Your task to perform on an android device: Search for vegetarian restaurants on Maps Image 0: 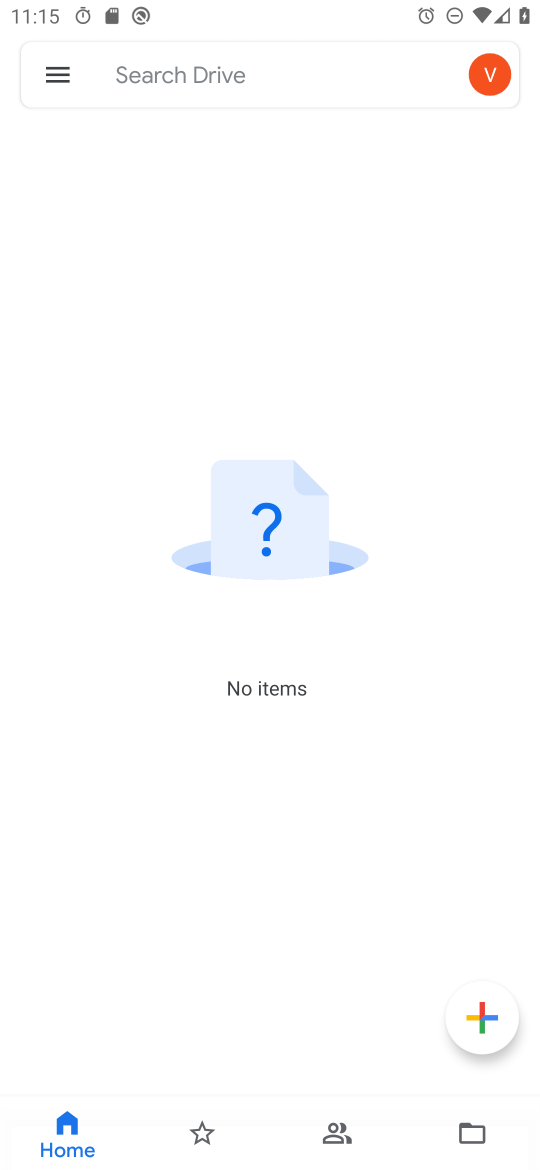
Step 0: press home button
Your task to perform on an android device: Search for vegetarian restaurants on Maps Image 1: 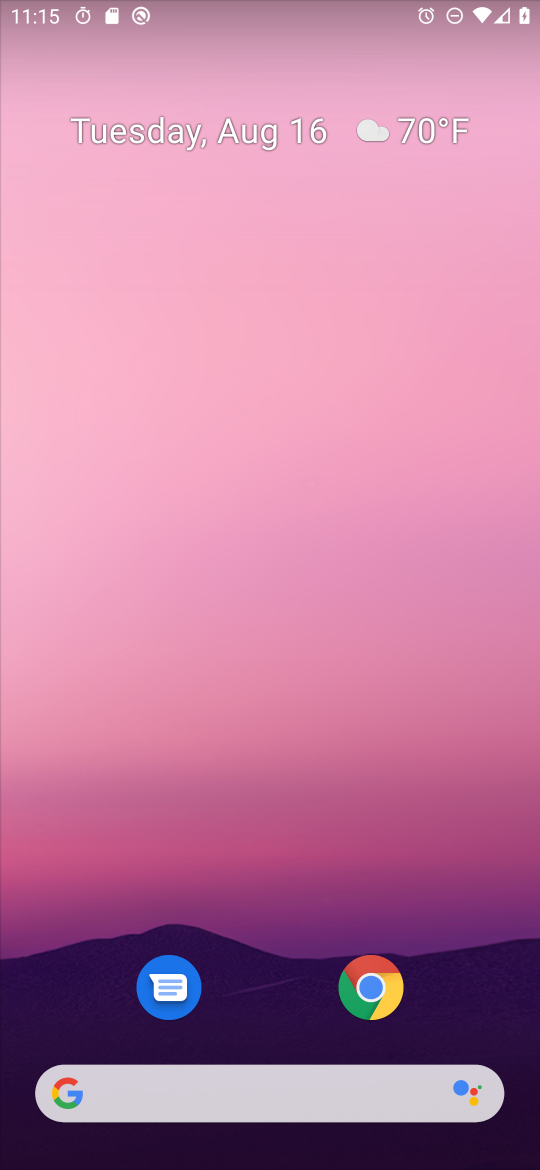
Step 1: click (163, 1093)
Your task to perform on an android device: Search for vegetarian restaurants on Maps Image 2: 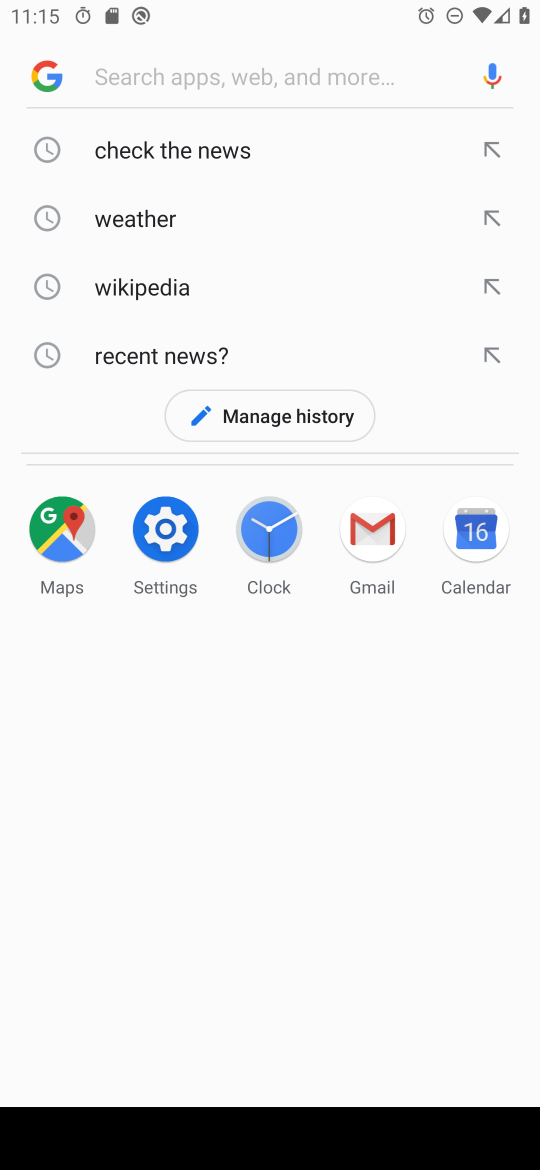
Step 2: press home button
Your task to perform on an android device: Search for vegetarian restaurants on Maps Image 3: 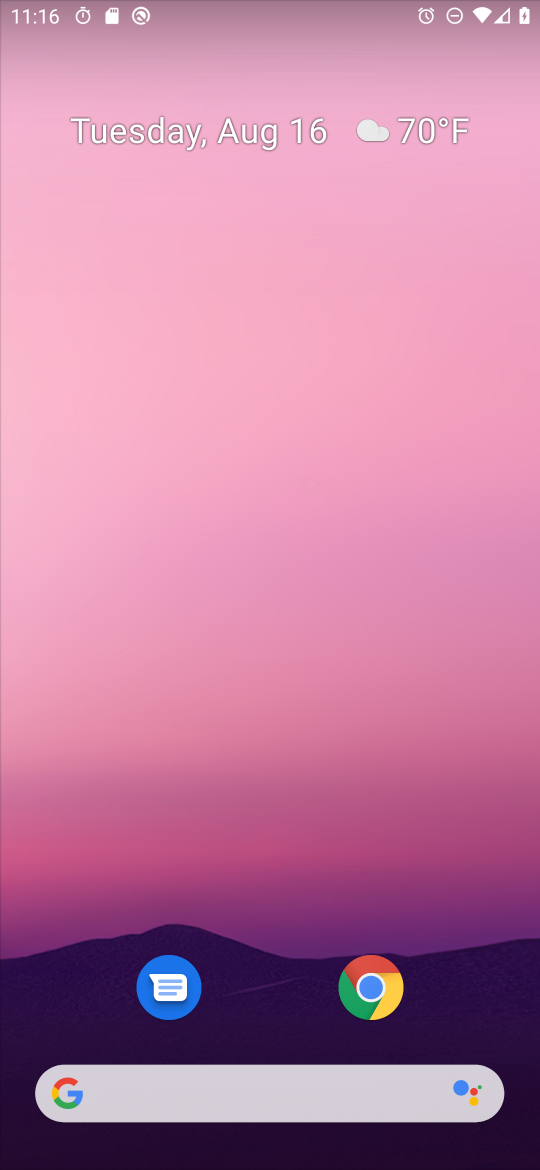
Step 3: drag from (13, 1129) to (372, 468)
Your task to perform on an android device: Search for vegetarian restaurants on Maps Image 4: 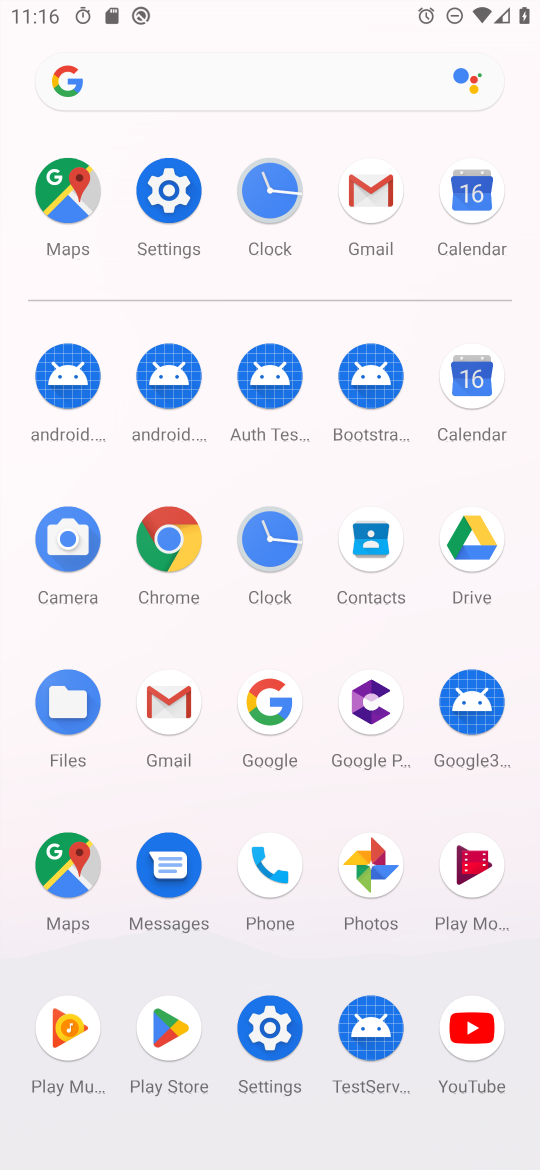
Step 4: click (79, 863)
Your task to perform on an android device: Search for vegetarian restaurants on Maps Image 5: 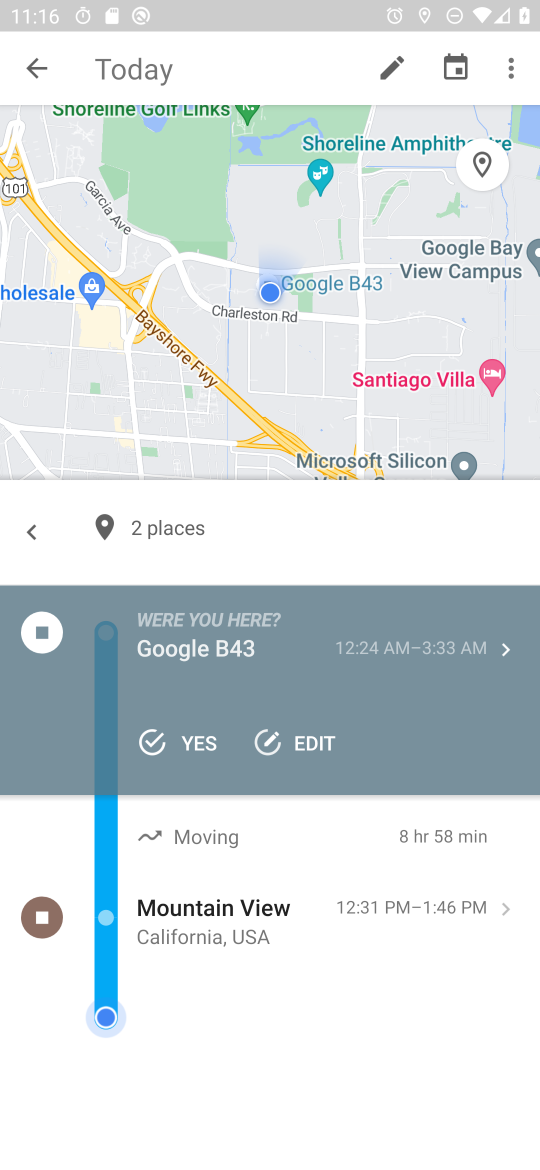
Step 5: click (134, 63)
Your task to perform on an android device: Search for vegetarian restaurants on Maps Image 6: 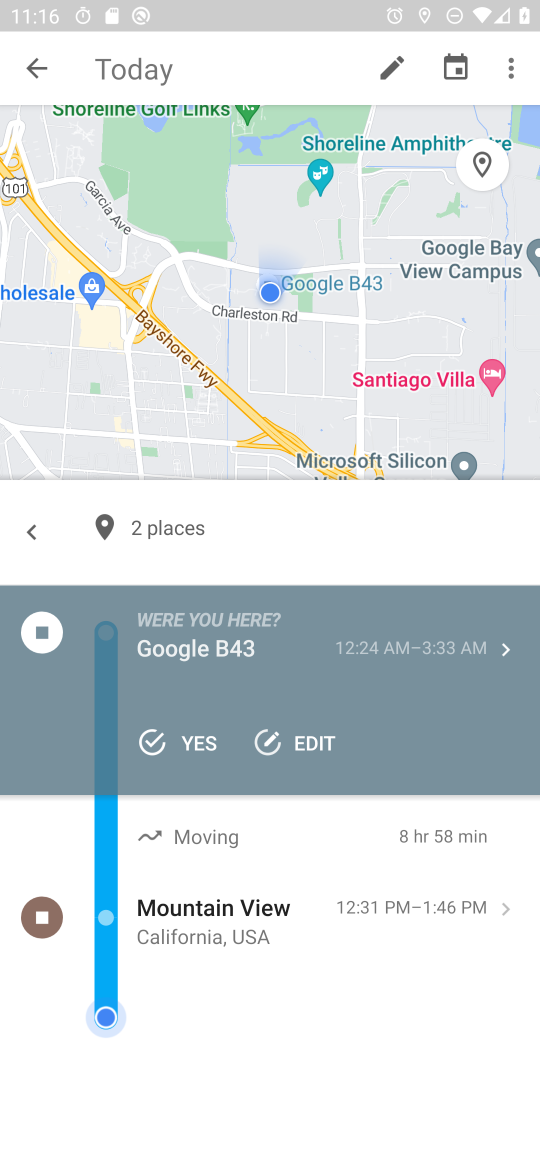
Step 6: click (121, 67)
Your task to perform on an android device: Search for vegetarian restaurants on Maps Image 7: 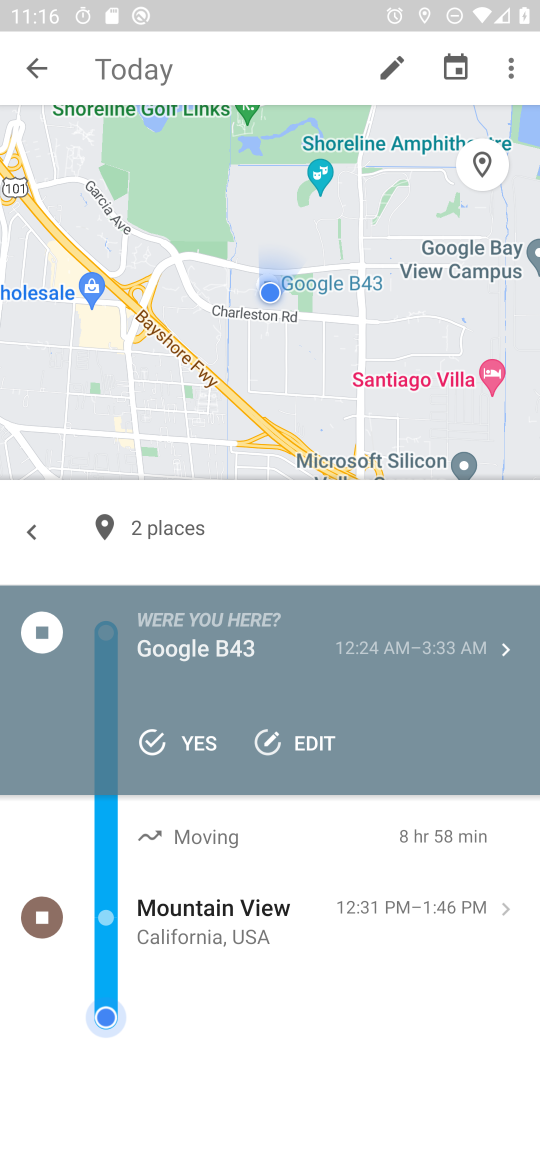
Step 7: click (30, 68)
Your task to perform on an android device: Search for vegetarian restaurants on Maps Image 8: 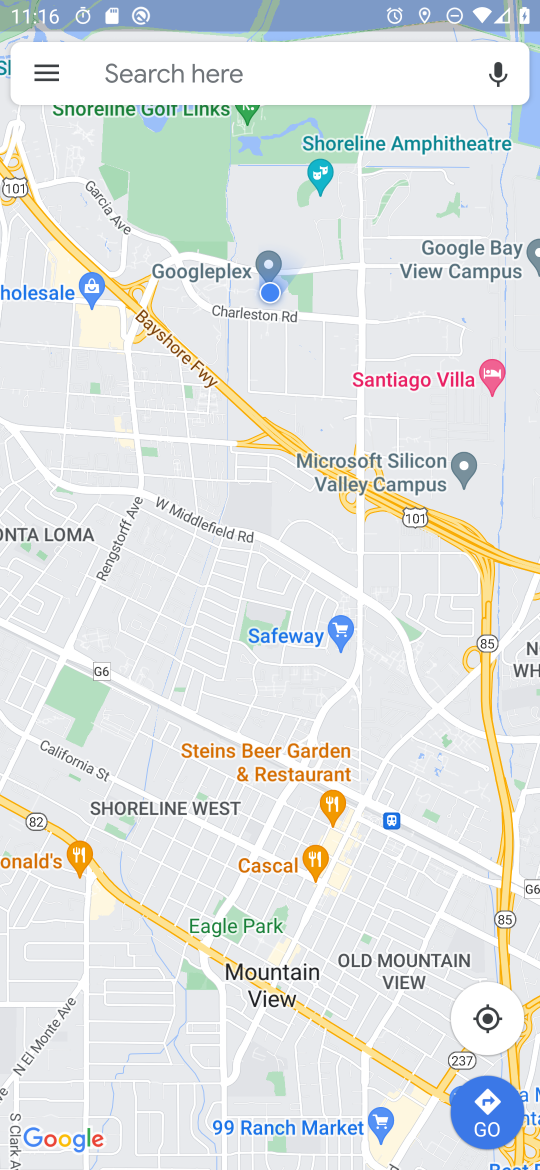
Step 8: click (137, 62)
Your task to perform on an android device: Search for vegetarian restaurants on Maps Image 9: 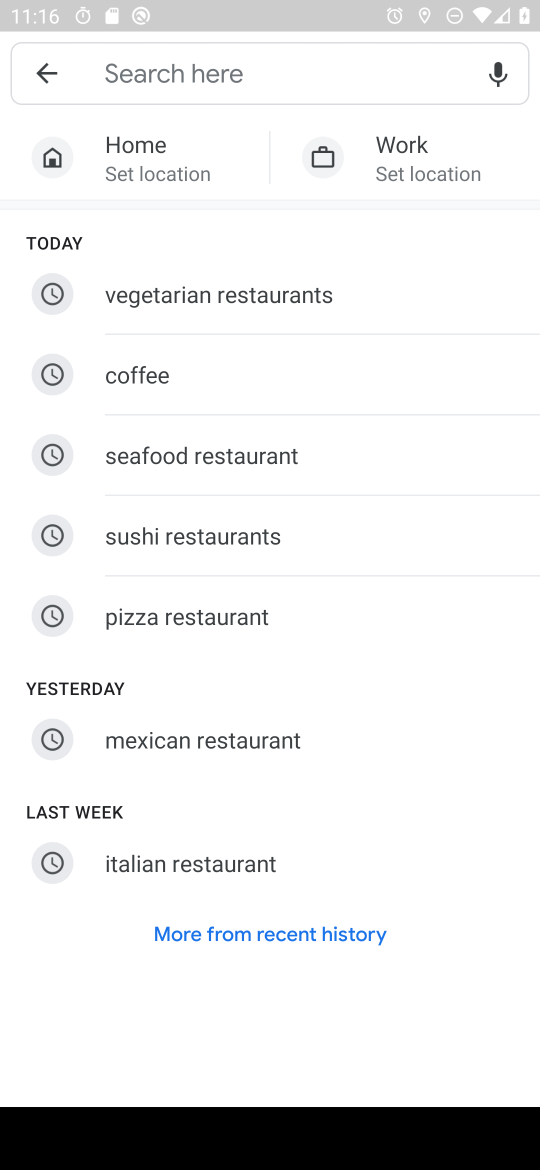
Step 9: click (190, 291)
Your task to perform on an android device: Search for vegetarian restaurants on Maps Image 10: 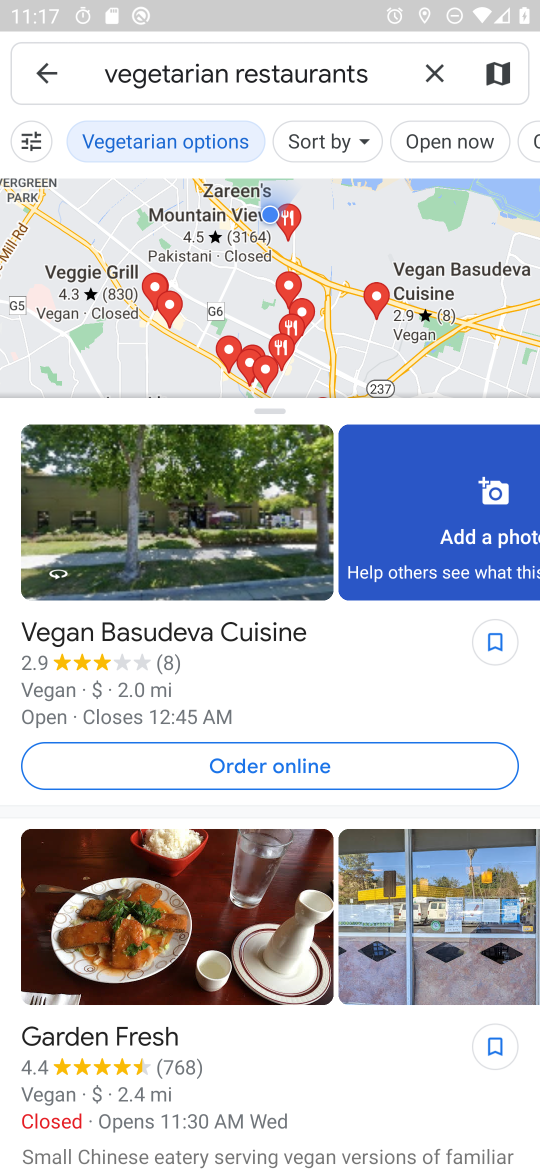
Step 10: task complete